Your task to perform on an android device: move a message to another label in the gmail app Image 0: 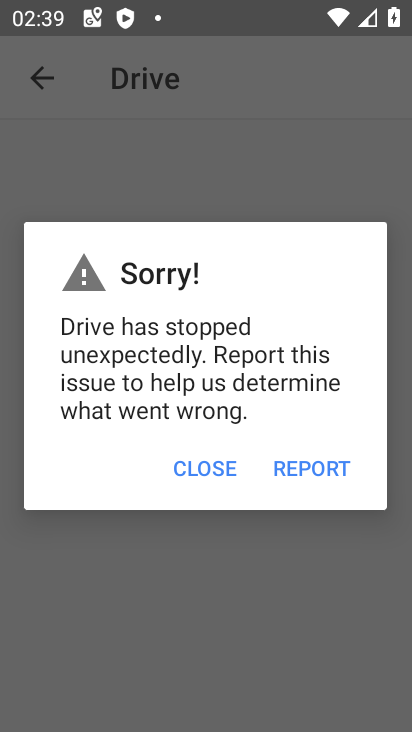
Step 0: press home button
Your task to perform on an android device: move a message to another label in the gmail app Image 1: 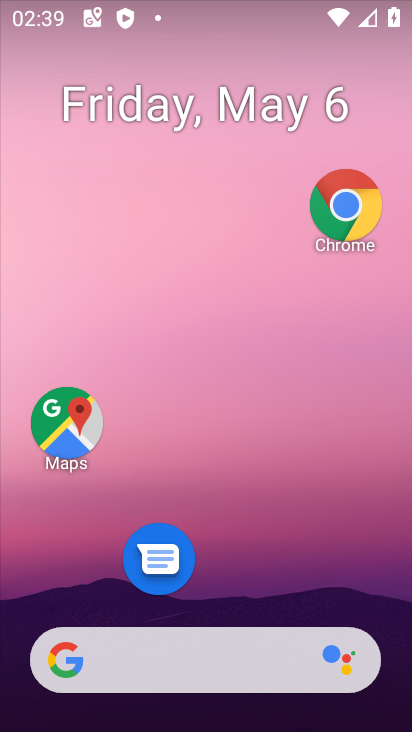
Step 1: drag from (192, 673) to (309, 173)
Your task to perform on an android device: move a message to another label in the gmail app Image 2: 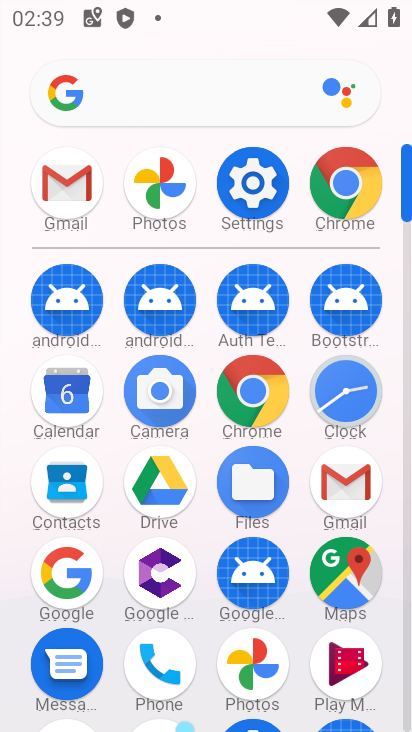
Step 2: click (62, 177)
Your task to perform on an android device: move a message to another label in the gmail app Image 3: 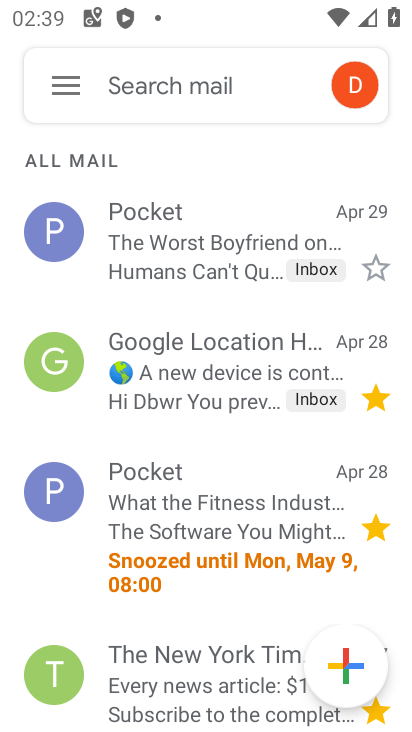
Step 3: click (197, 527)
Your task to perform on an android device: move a message to another label in the gmail app Image 4: 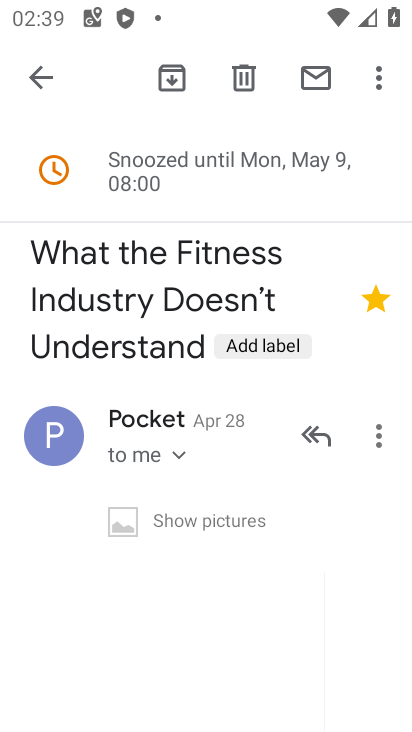
Step 4: click (273, 341)
Your task to perform on an android device: move a message to another label in the gmail app Image 5: 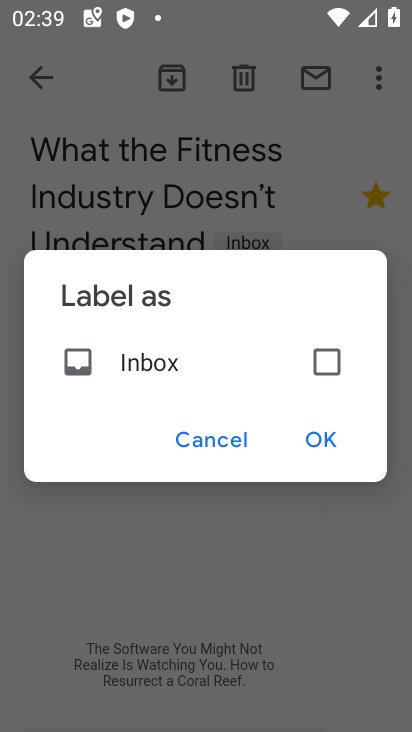
Step 5: click (320, 366)
Your task to perform on an android device: move a message to another label in the gmail app Image 6: 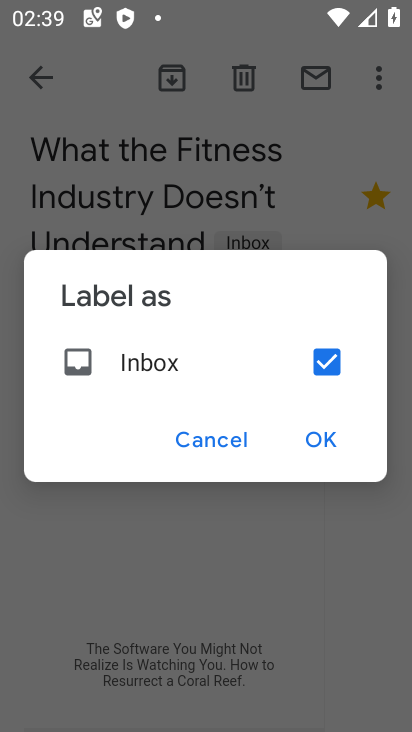
Step 6: click (326, 436)
Your task to perform on an android device: move a message to another label in the gmail app Image 7: 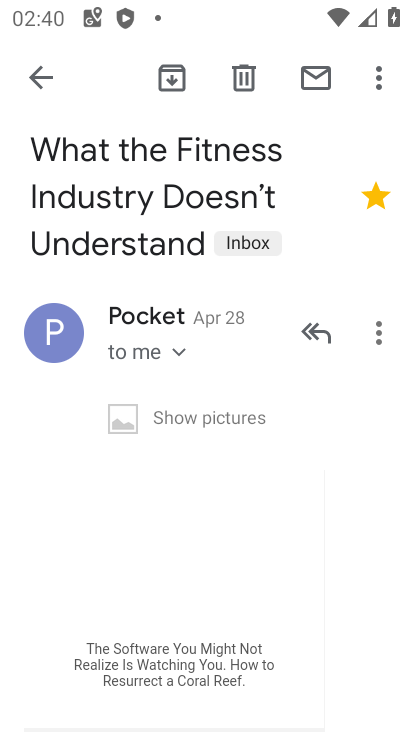
Step 7: task complete